Your task to perform on an android device: Open settings on Google Maps Image 0: 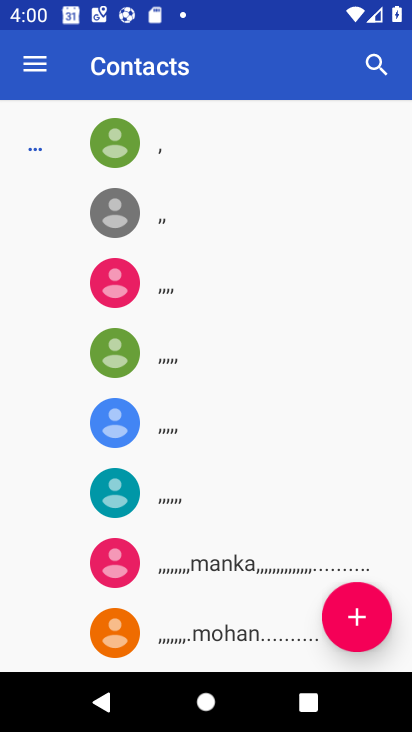
Step 0: press home button
Your task to perform on an android device: Open settings on Google Maps Image 1: 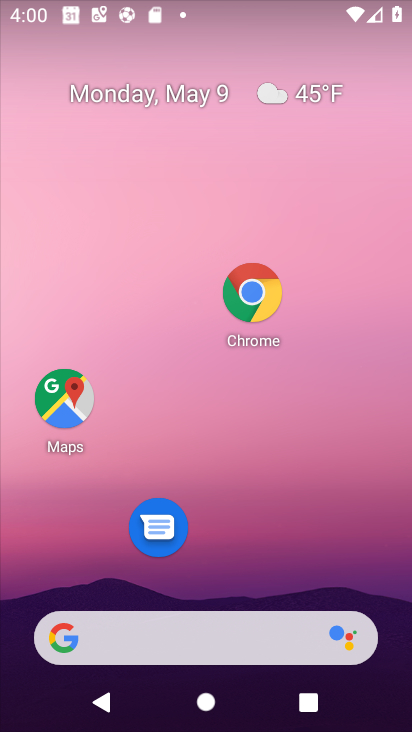
Step 1: drag from (201, 496) to (216, 333)
Your task to perform on an android device: Open settings on Google Maps Image 2: 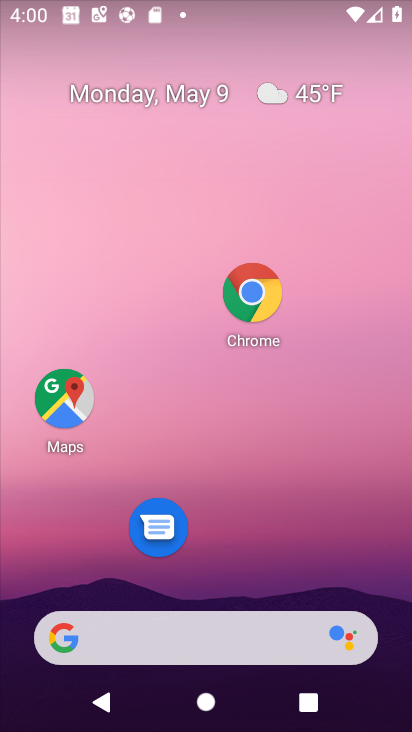
Step 2: click (66, 416)
Your task to perform on an android device: Open settings on Google Maps Image 3: 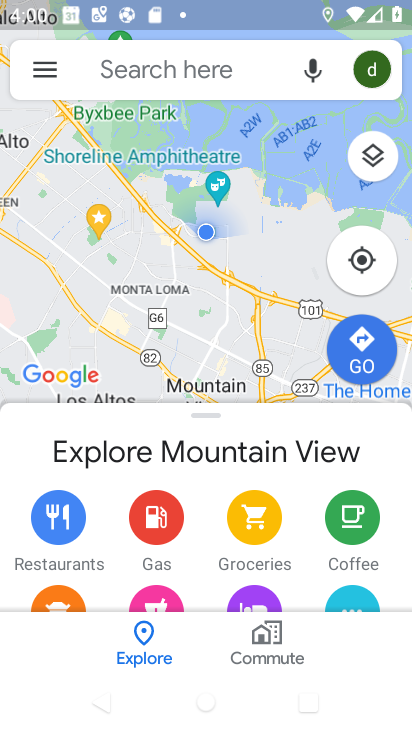
Step 3: click (50, 77)
Your task to perform on an android device: Open settings on Google Maps Image 4: 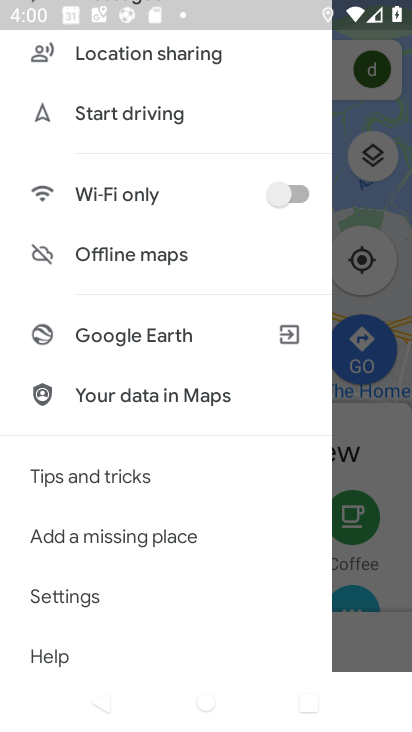
Step 4: click (90, 603)
Your task to perform on an android device: Open settings on Google Maps Image 5: 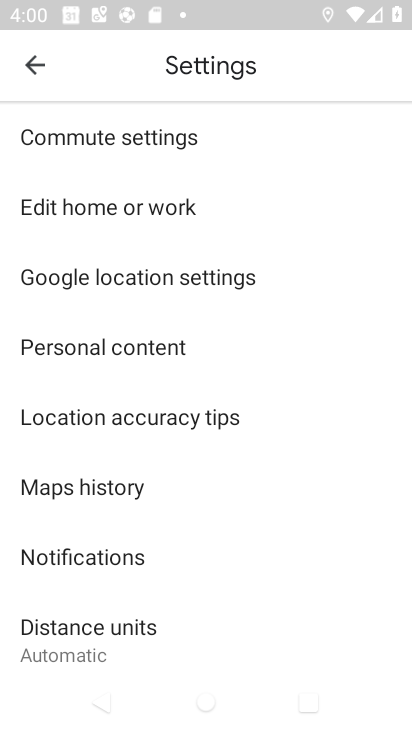
Step 5: task complete